Your task to perform on an android device: Go to network settings Image 0: 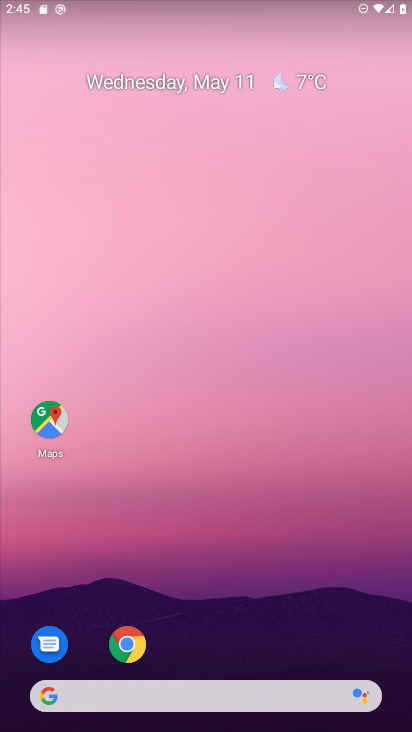
Step 0: drag from (185, 659) to (230, 122)
Your task to perform on an android device: Go to network settings Image 1: 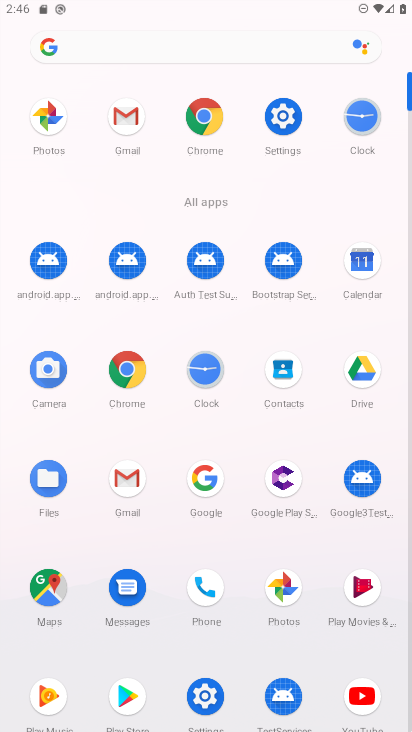
Step 1: click (265, 115)
Your task to perform on an android device: Go to network settings Image 2: 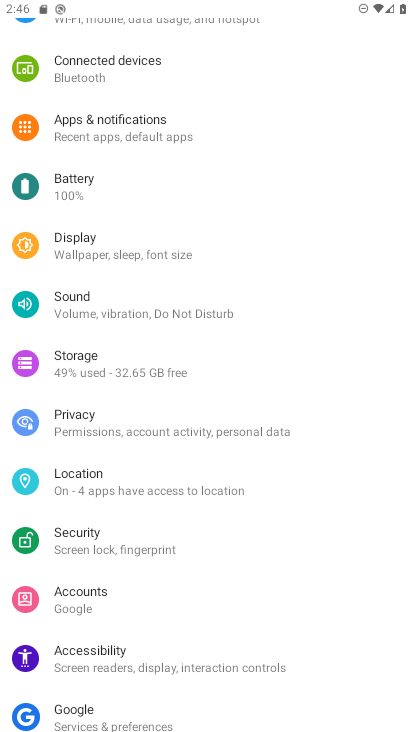
Step 2: drag from (171, 95) to (182, 477)
Your task to perform on an android device: Go to network settings Image 3: 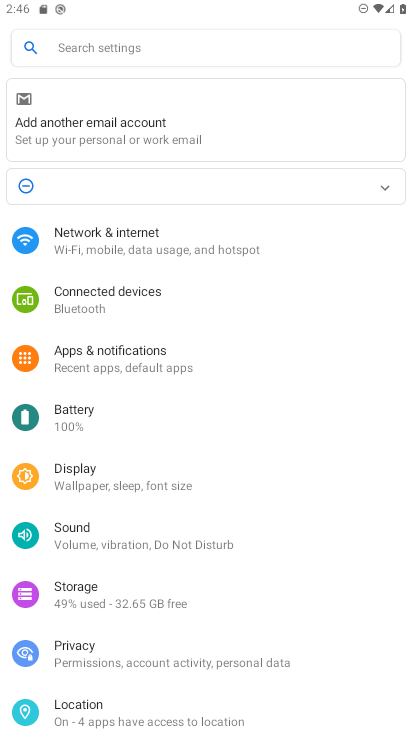
Step 3: click (160, 227)
Your task to perform on an android device: Go to network settings Image 4: 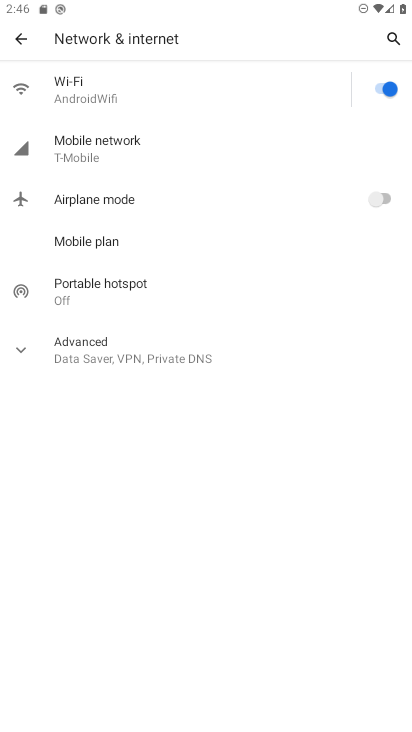
Step 4: click (150, 147)
Your task to perform on an android device: Go to network settings Image 5: 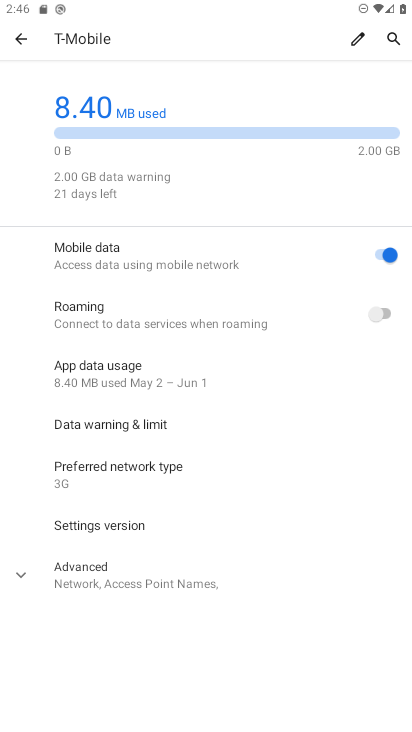
Step 5: task complete